Your task to perform on an android device: manage bookmarks in the chrome app Image 0: 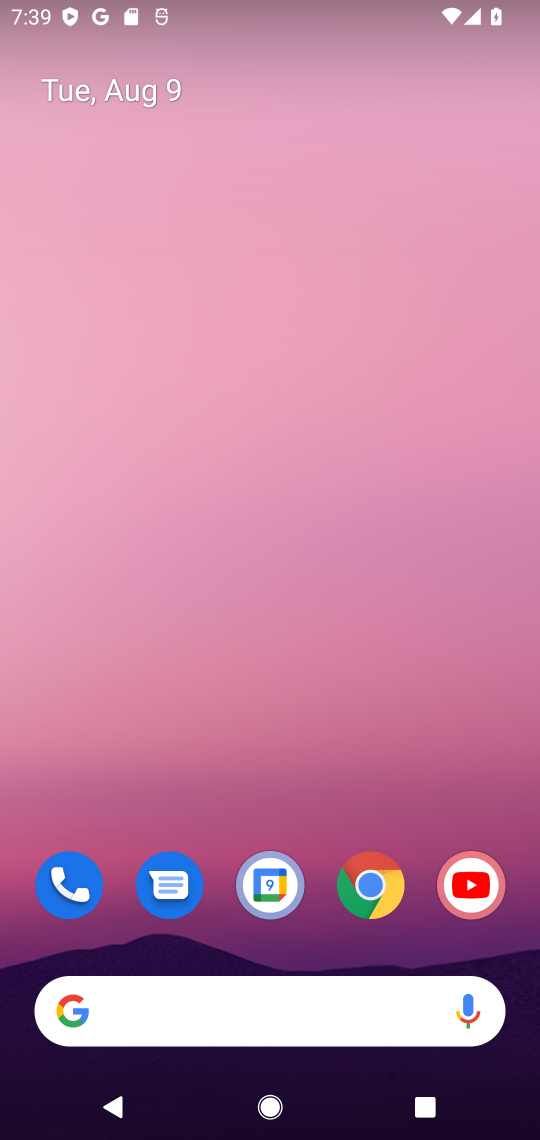
Step 0: click (316, 169)
Your task to perform on an android device: manage bookmarks in the chrome app Image 1: 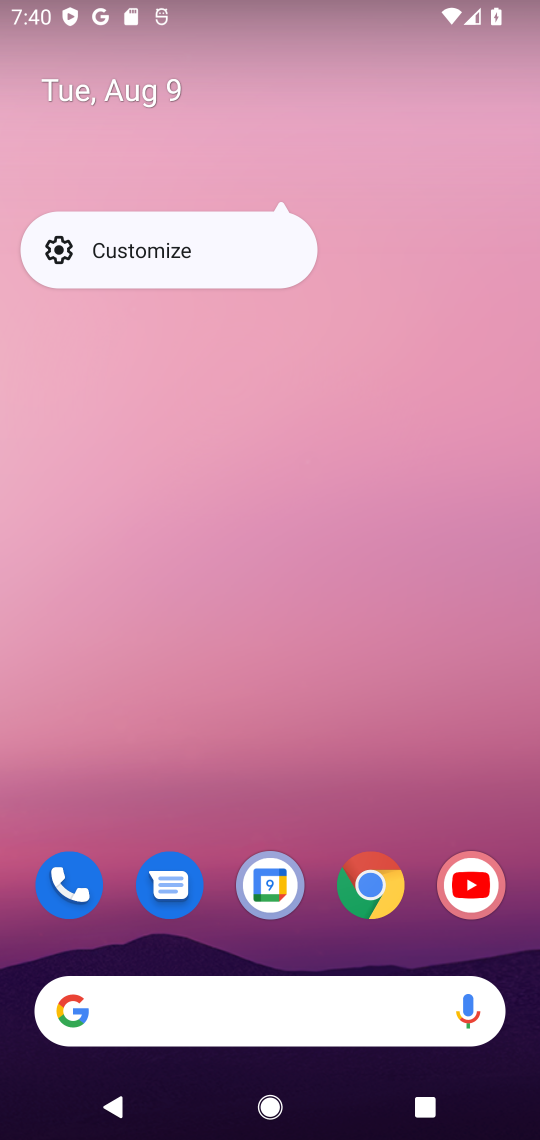
Step 1: click (380, 873)
Your task to perform on an android device: manage bookmarks in the chrome app Image 2: 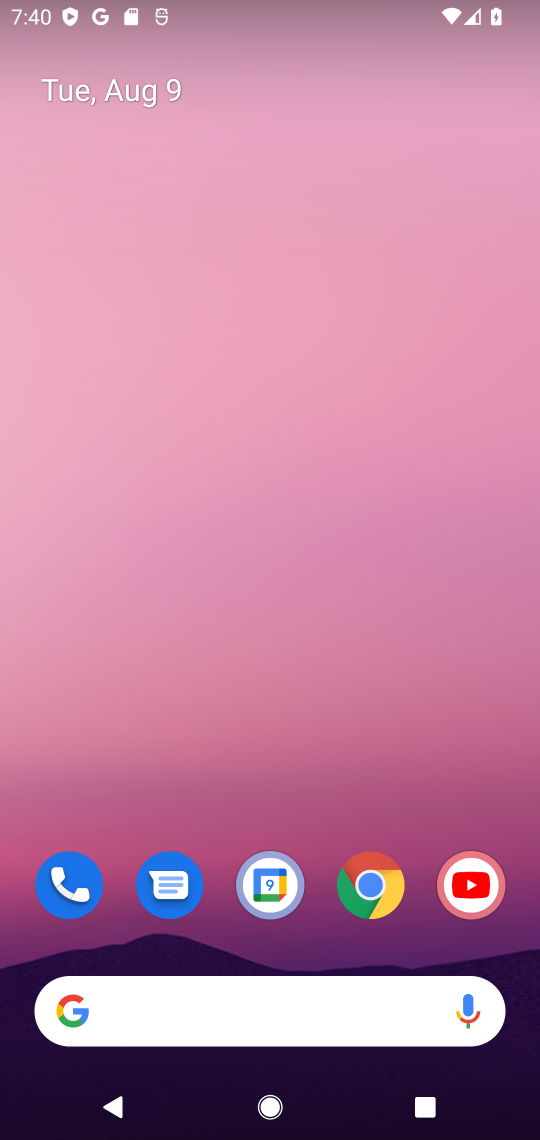
Step 2: click (385, 894)
Your task to perform on an android device: manage bookmarks in the chrome app Image 3: 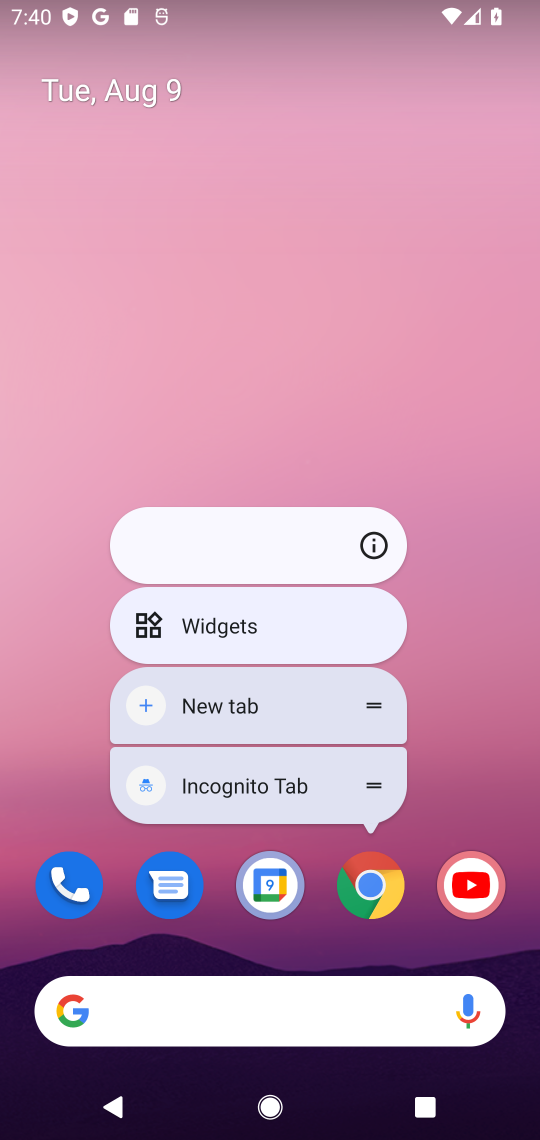
Step 3: click (354, 888)
Your task to perform on an android device: manage bookmarks in the chrome app Image 4: 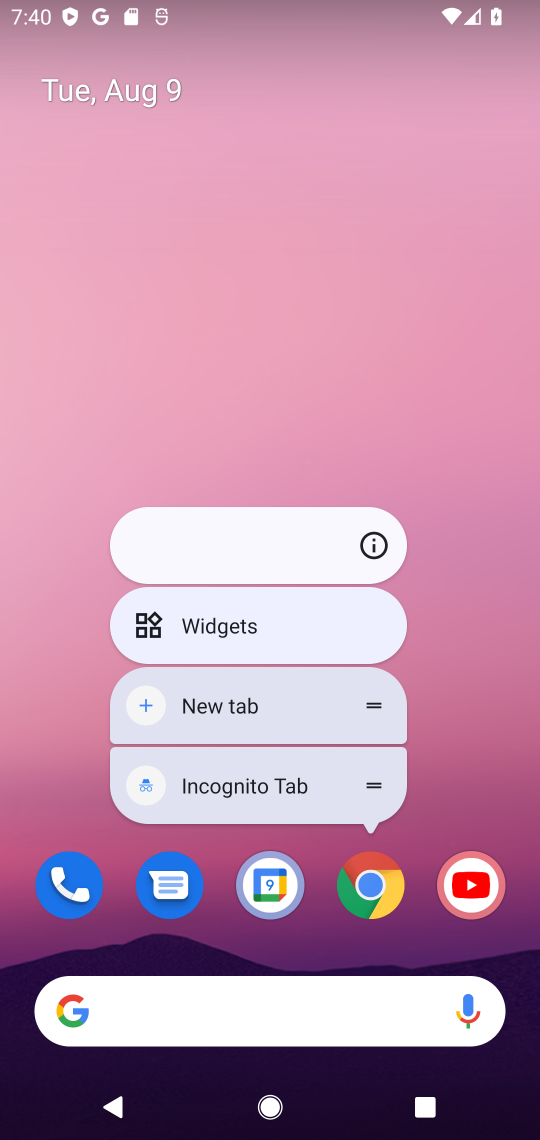
Step 4: task complete